Your task to perform on an android device: Open calendar and show me the fourth week of next month Image 0: 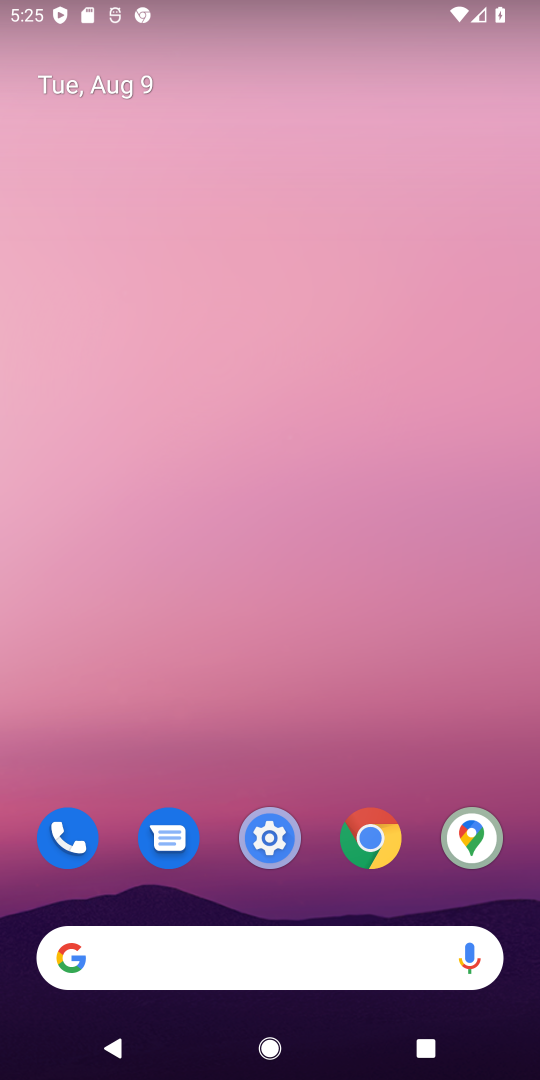
Step 0: drag from (528, 954) to (481, 287)
Your task to perform on an android device: Open calendar and show me the fourth week of next month Image 1: 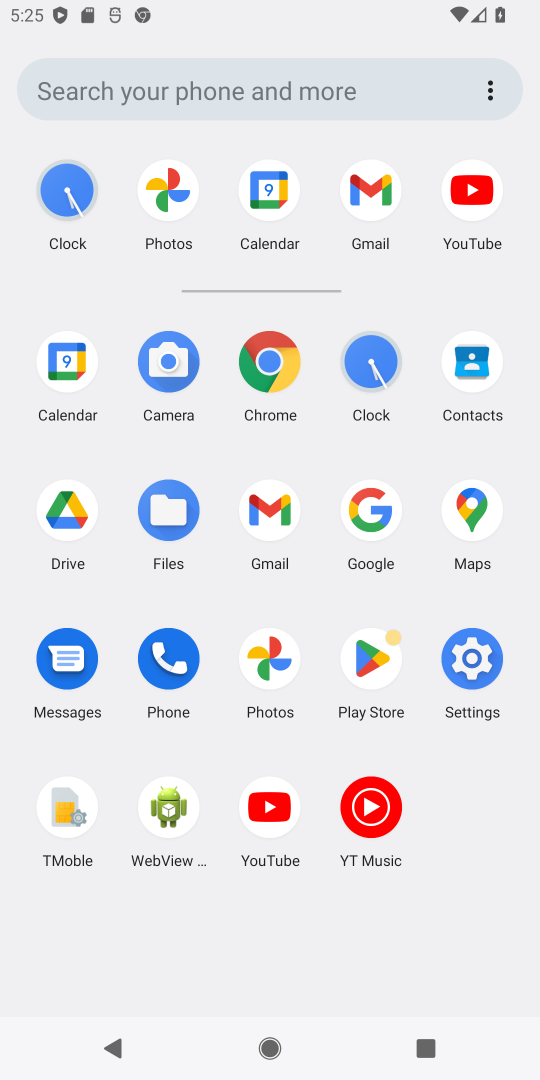
Step 1: click (258, 195)
Your task to perform on an android device: Open calendar and show me the fourth week of next month Image 2: 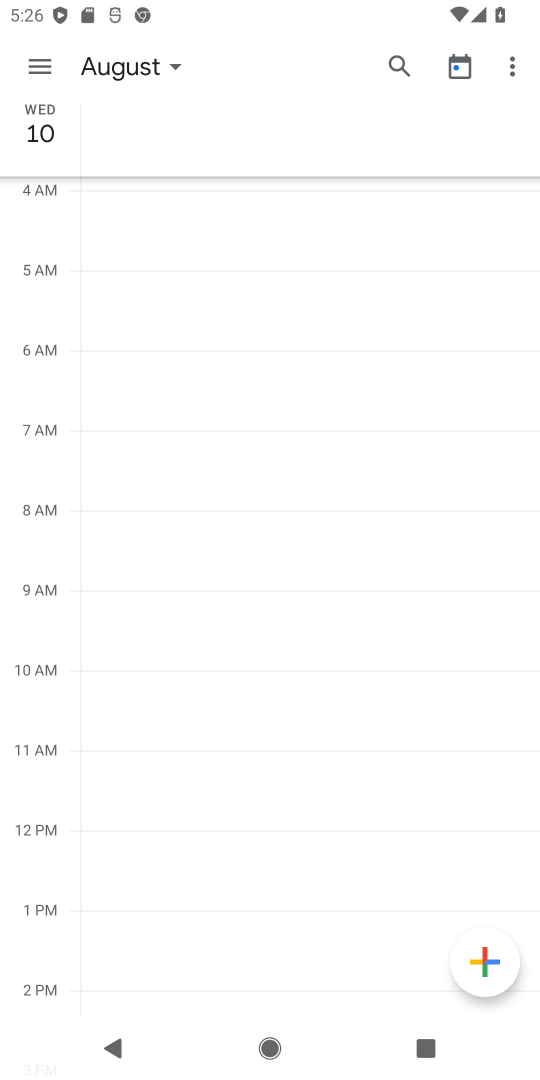
Step 2: click (39, 67)
Your task to perform on an android device: Open calendar and show me the fourth week of next month Image 3: 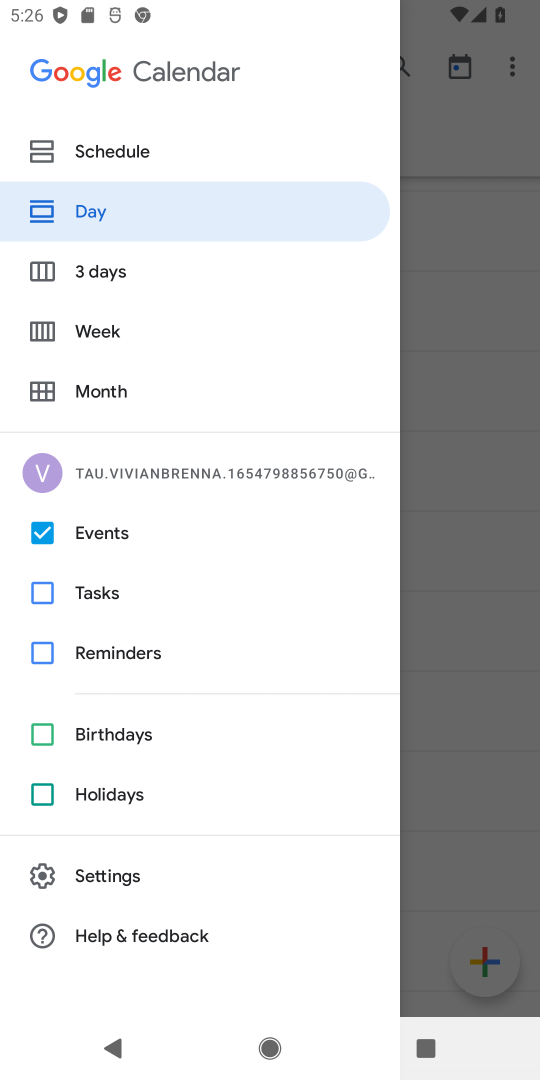
Step 3: click (122, 321)
Your task to perform on an android device: Open calendar and show me the fourth week of next month Image 4: 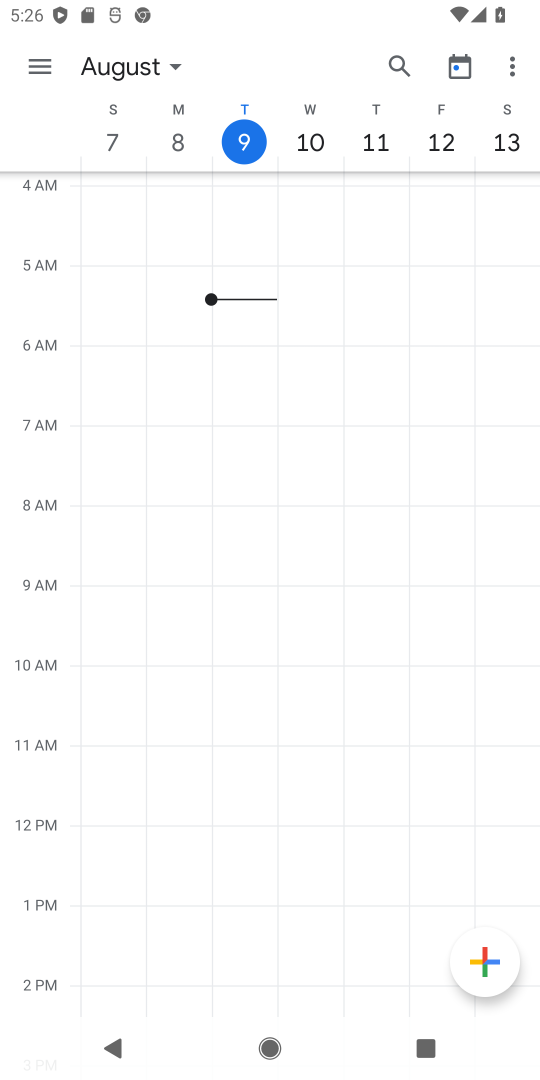
Step 4: click (166, 80)
Your task to perform on an android device: Open calendar and show me the fourth week of next month Image 5: 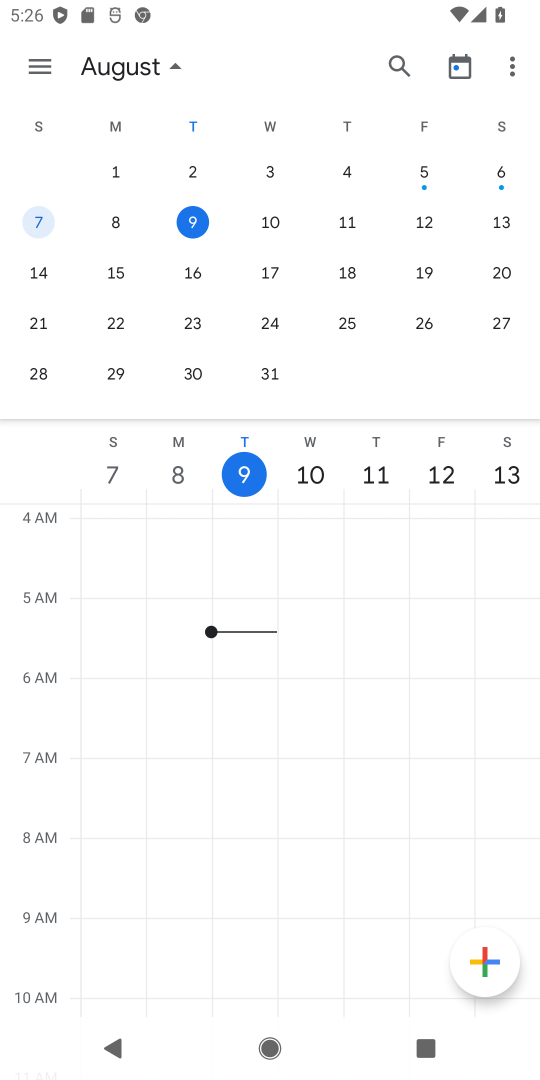
Step 5: drag from (504, 295) to (9, 299)
Your task to perform on an android device: Open calendar and show me the fourth week of next month Image 6: 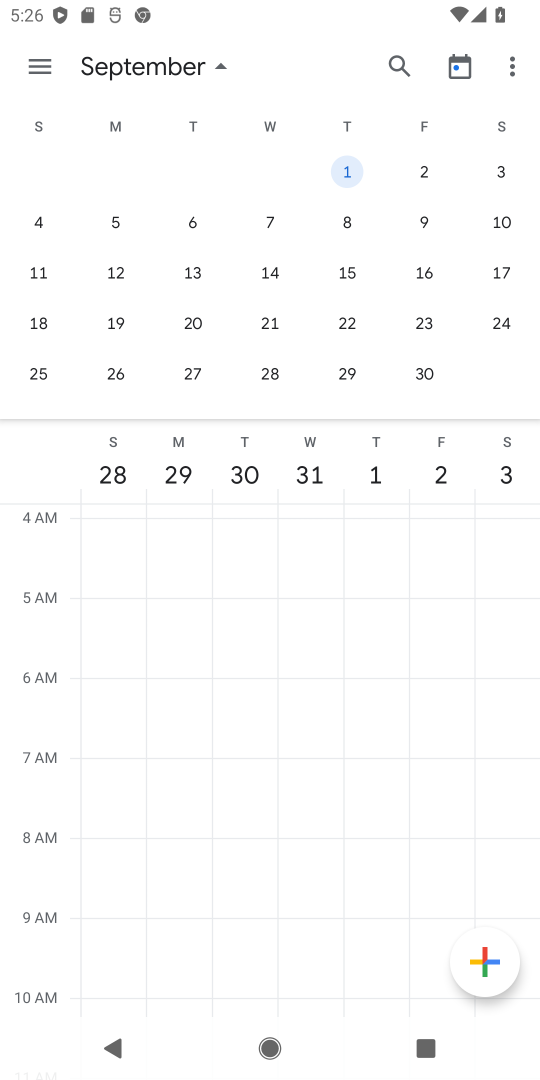
Step 6: click (267, 377)
Your task to perform on an android device: Open calendar and show me the fourth week of next month Image 7: 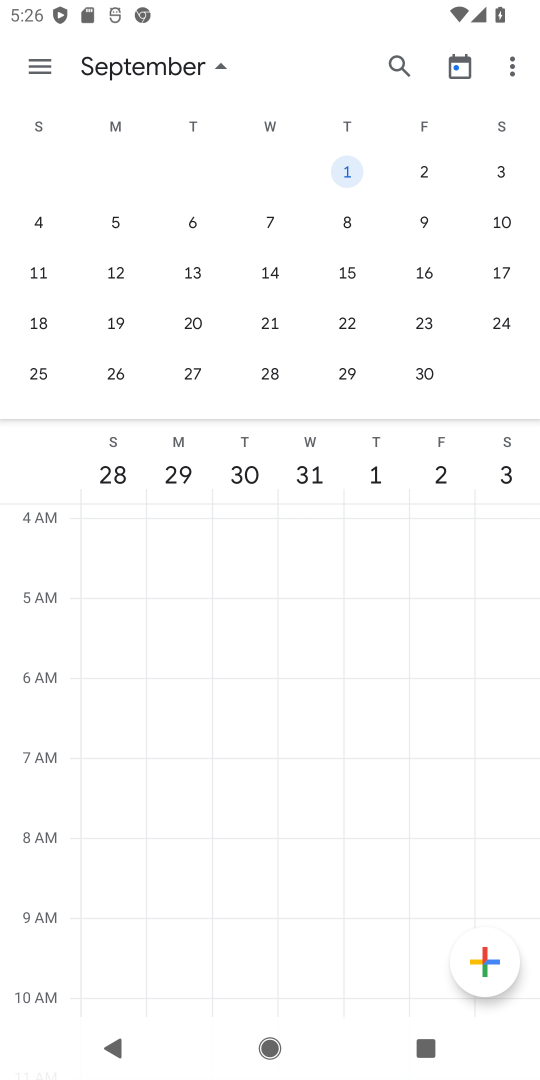
Step 7: click (274, 373)
Your task to perform on an android device: Open calendar and show me the fourth week of next month Image 8: 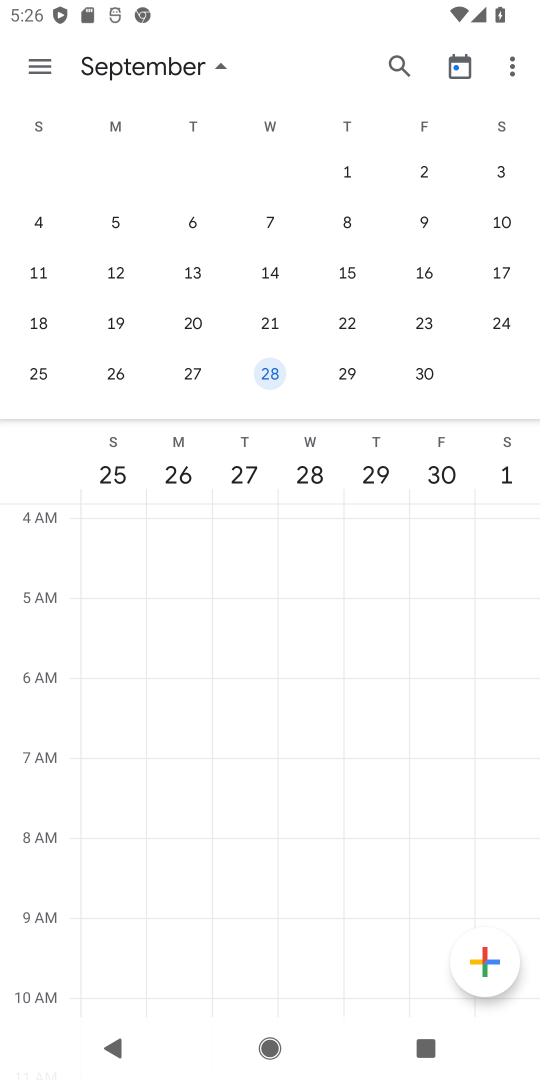
Step 8: task complete